Your task to perform on an android device: Open calendar and show me the first week of next month Image 0: 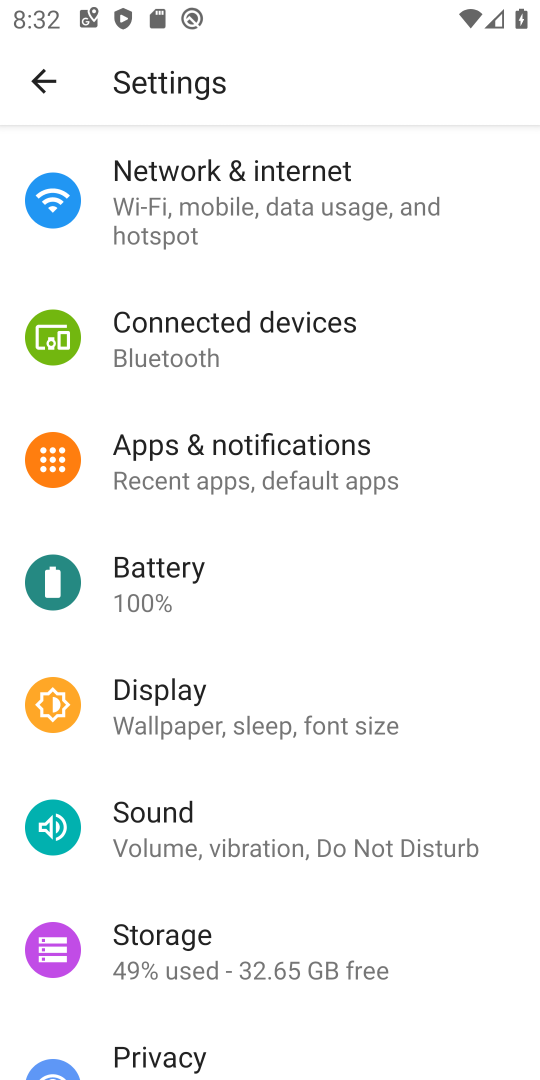
Step 0: press home button
Your task to perform on an android device: Open calendar and show me the first week of next month Image 1: 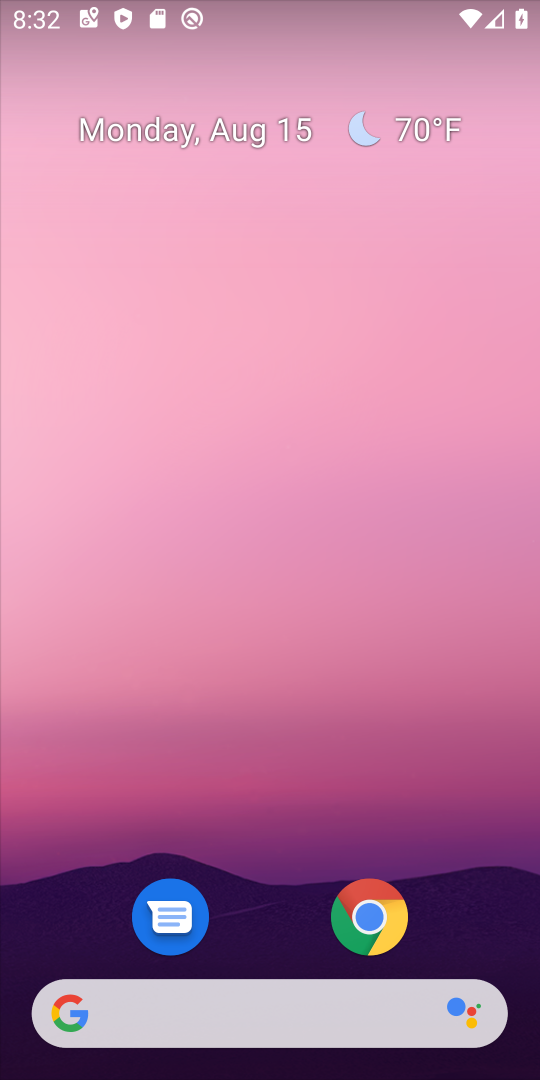
Step 1: drag from (282, 879) to (349, 0)
Your task to perform on an android device: Open calendar and show me the first week of next month Image 2: 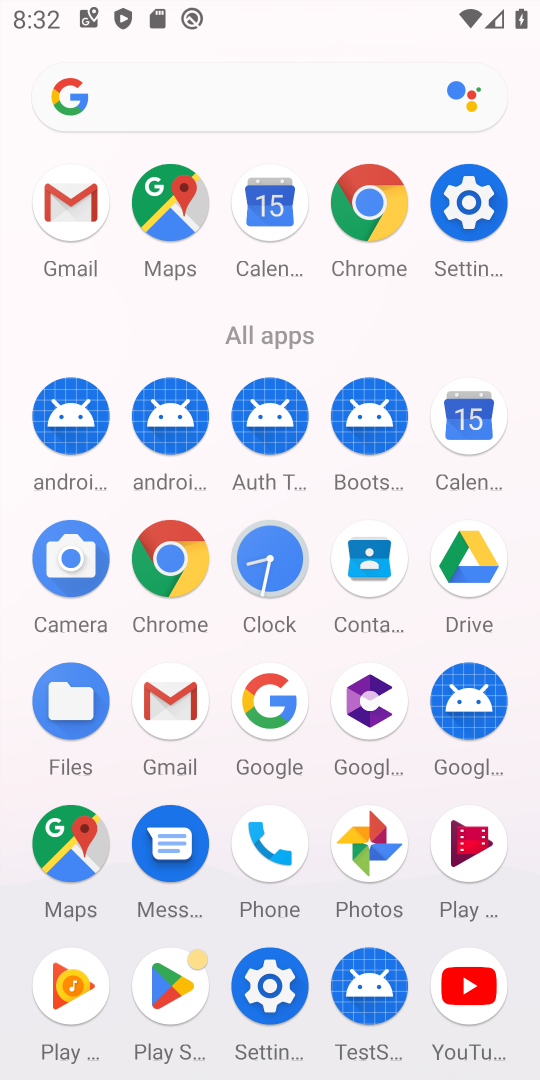
Step 2: click (278, 216)
Your task to perform on an android device: Open calendar and show me the first week of next month Image 3: 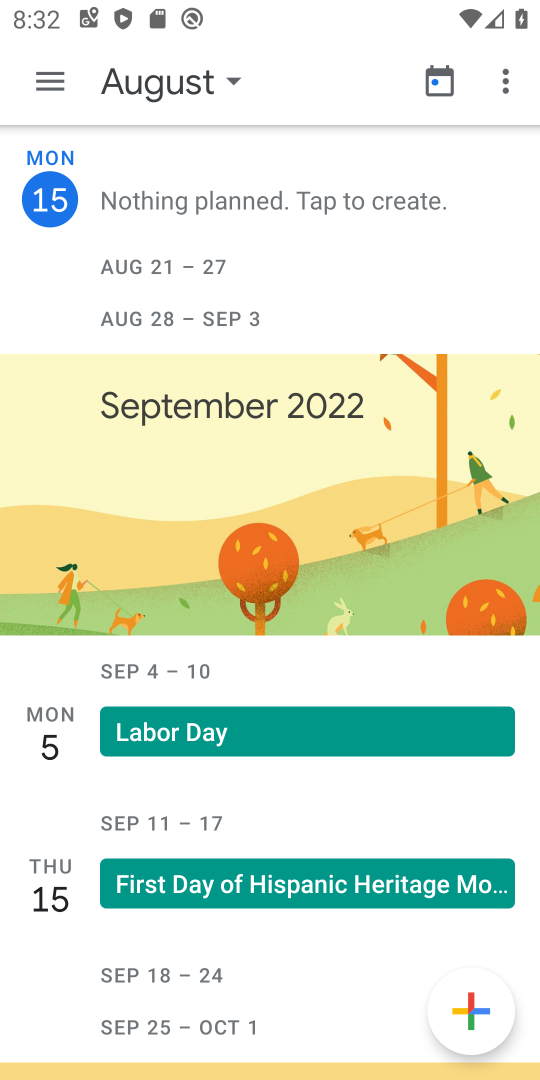
Step 3: click (57, 76)
Your task to perform on an android device: Open calendar and show me the first week of next month Image 4: 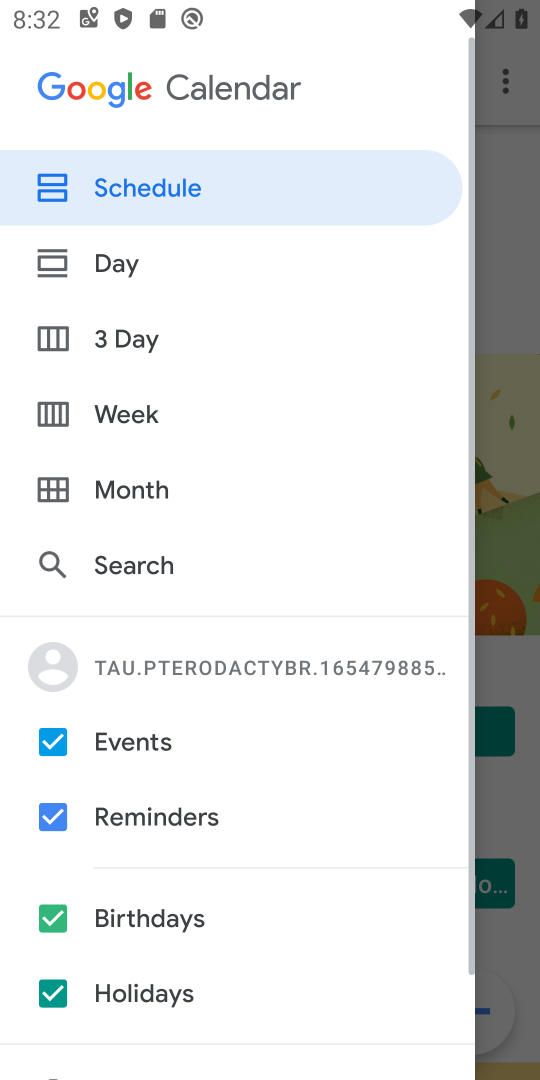
Step 4: click (43, 410)
Your task to perform on an android device: Open calendar and show me the first week of next month Image 5: 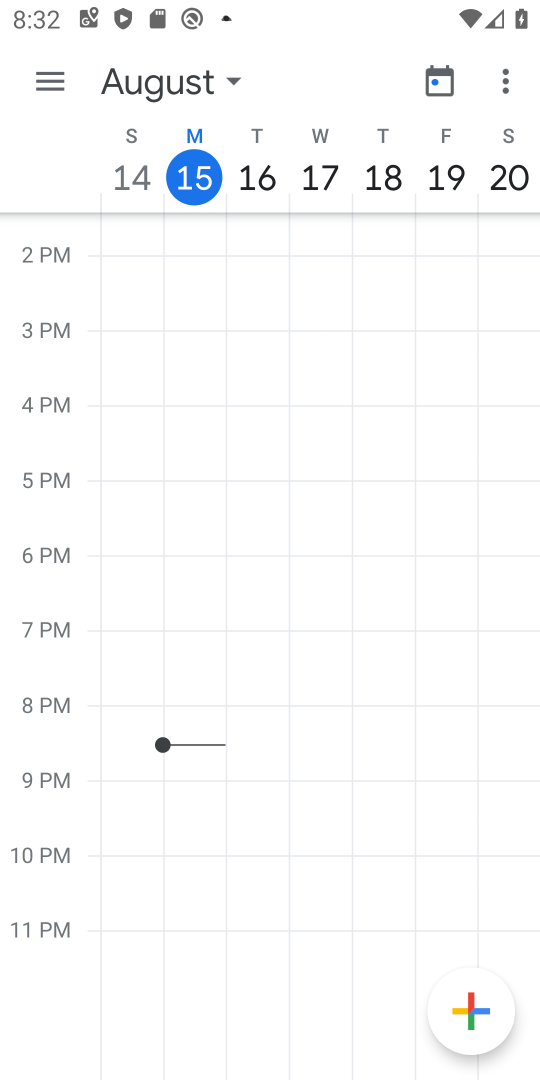
Step 5: task complete